Your task to perform on an android device: Open maps Image 0: 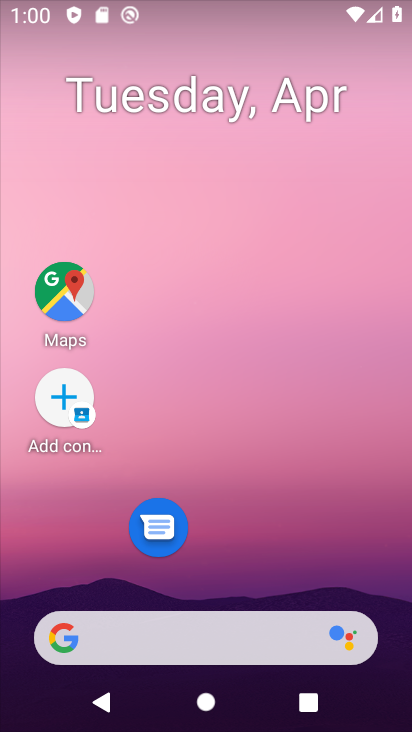
Step 0: click (63, 294)
Your task to perform on an android device: Open maps Image 1: 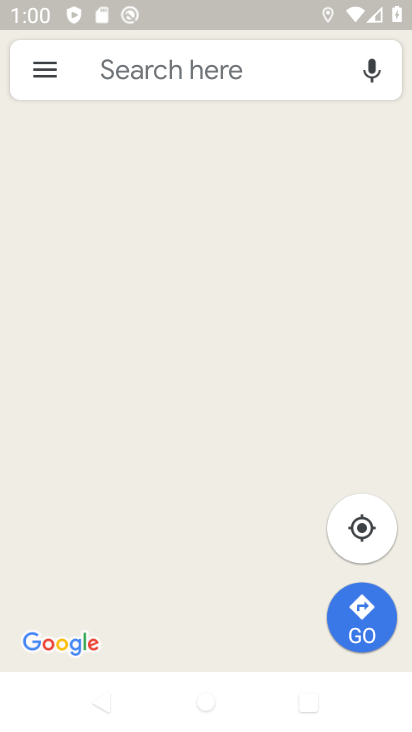
Step 1: click (196, 63)
Your task to perform on an android device: Open maps Image 2: 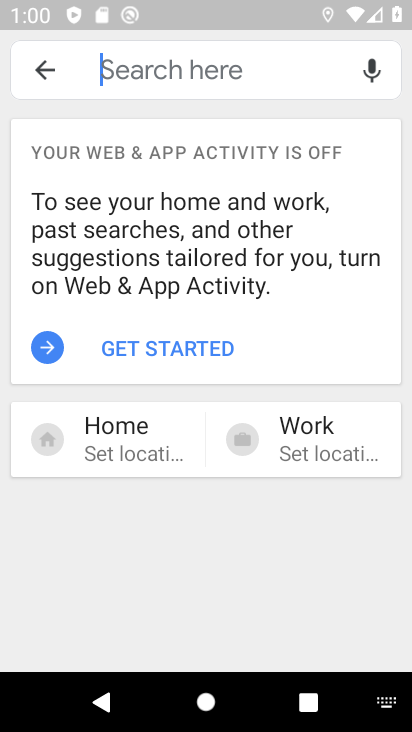
Step 2: task complete